Your task to perform on an android device: Go to settings Image 0: 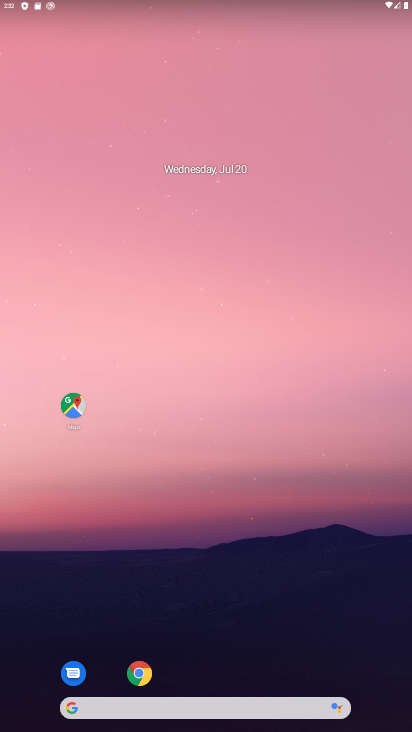
Step 0: drag from (285, 597) to (278, 118)
Your task to perform on an android device: Go to settings Image 1: 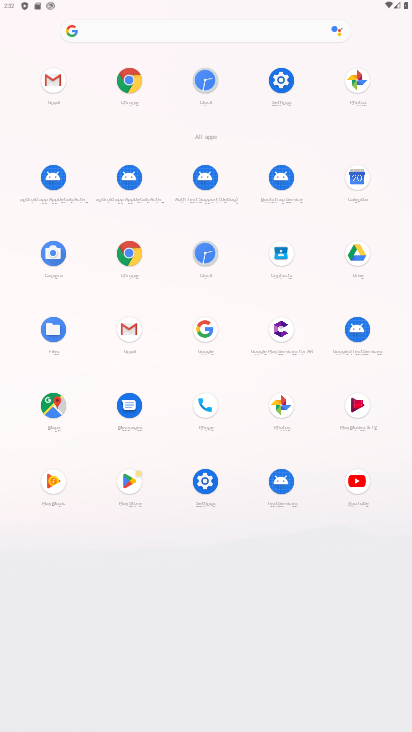
Step 1: click (287, 80)
Your task to perform on an android device: Go to settings Image 2: 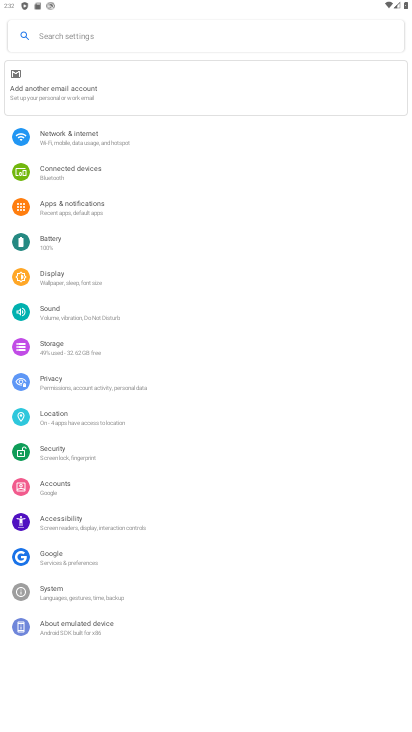
Step 2: task complete